Your task to perform on an android device: toggle airplane mode Image 0: 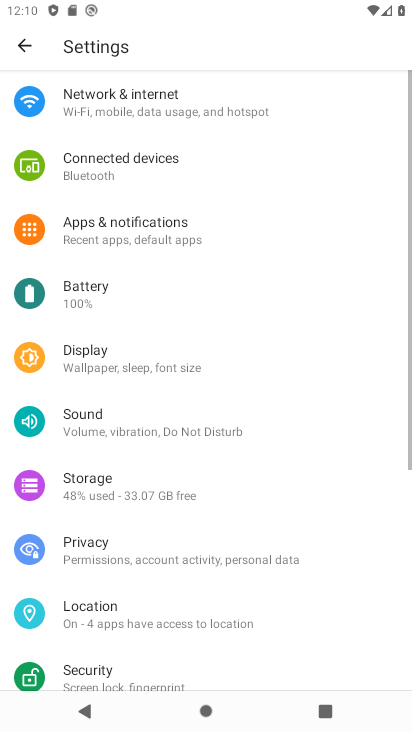
Step 0: click (300, 113)
Your task to perform on an android device: toggle airplane mode Image 1: 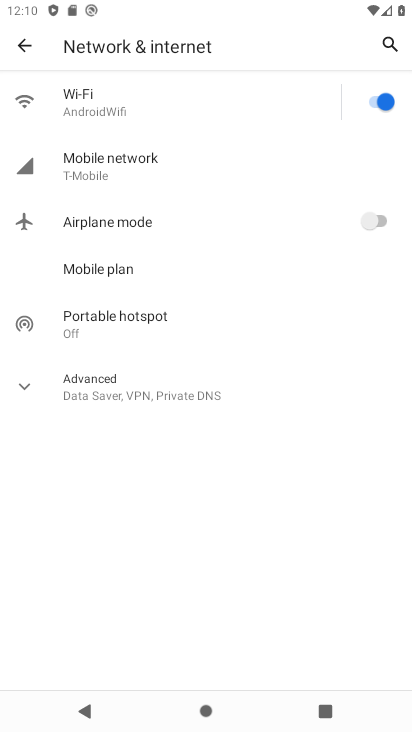
Step 1: click (392, 216)
Your task to perform on an android device: toggle airplane mode Image 2: 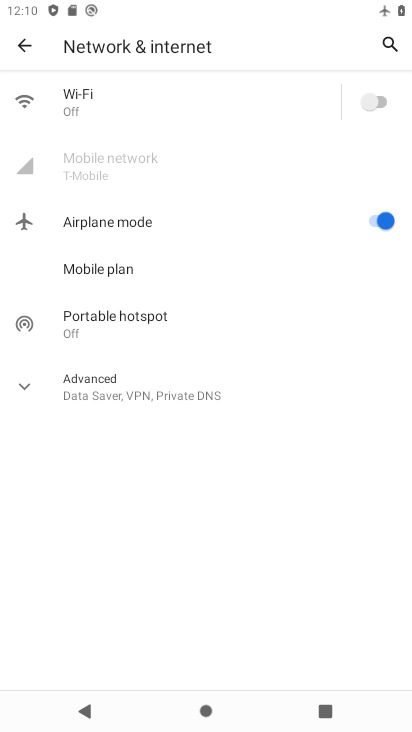
Step 2: task complete